Your task to perform on an android device: check the backup settings in the google photos Image 0: 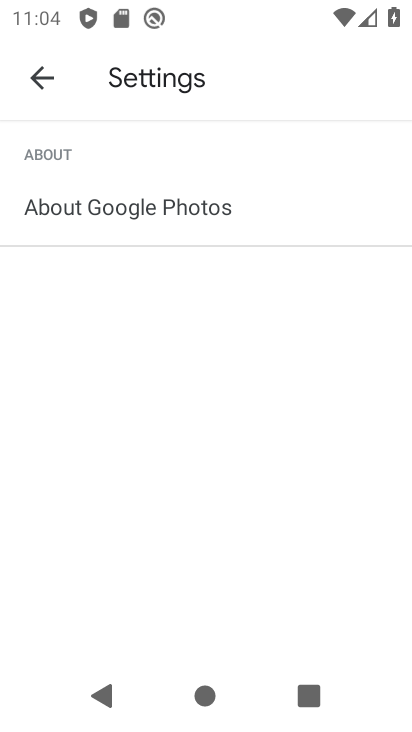
Step 0: press home button
Your task to perform on an android device: check the backup settings in the google photos Image 1: 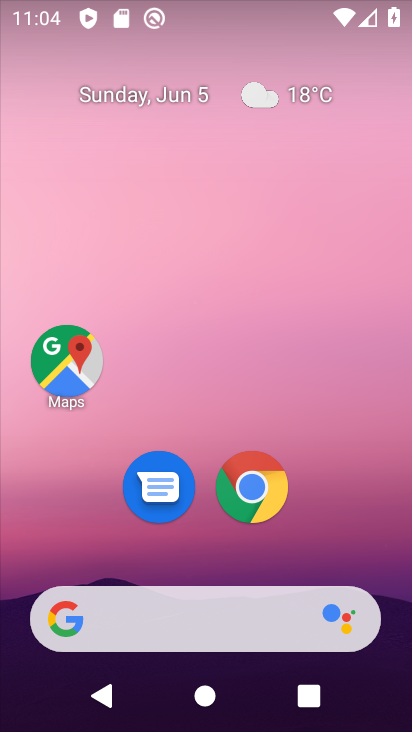
Step 1: drag from (350, 534) to (279, 37)
Your task to perform on an android device: check the backup settings in the google photos Image 2: 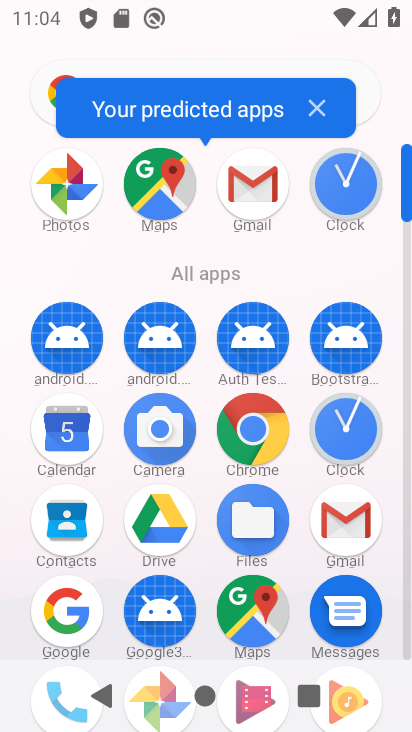
Step 2: click (290, 229)
Your task to perform on an android device: check the backup settings in the google photos Image 3: 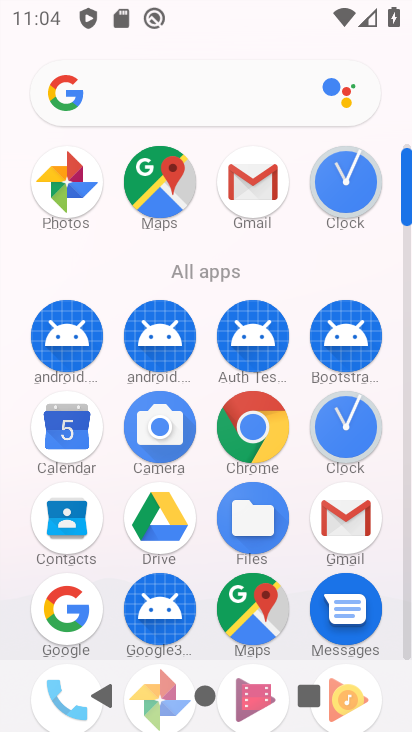
Step 3: click (67, 179)
Your task to perform on an android device: check the backup settings in the google photos Image 4: 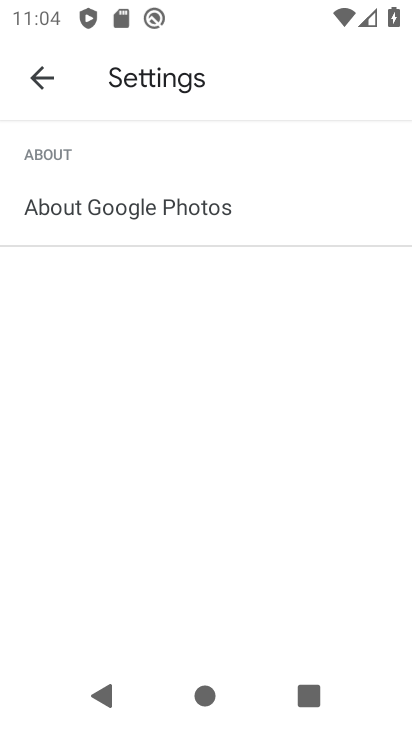
Step 4: click (44, 71)
Your task to perform on an android device: check the backup settings in the google photos Image 5: 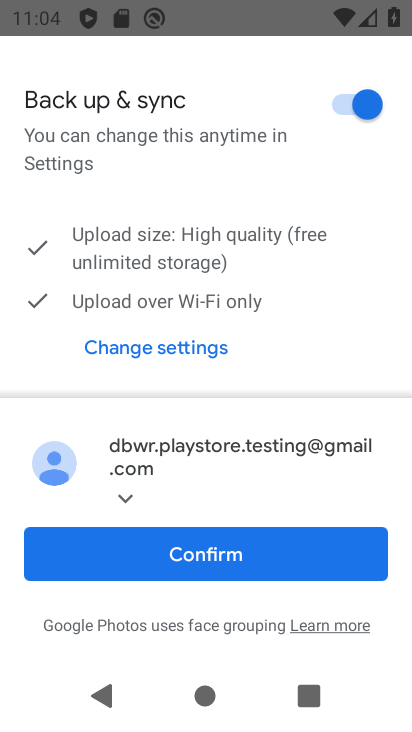
Step 5: click (196, 549)
Your task to perform on an android device: check the backup settings in the google photos Image 6: 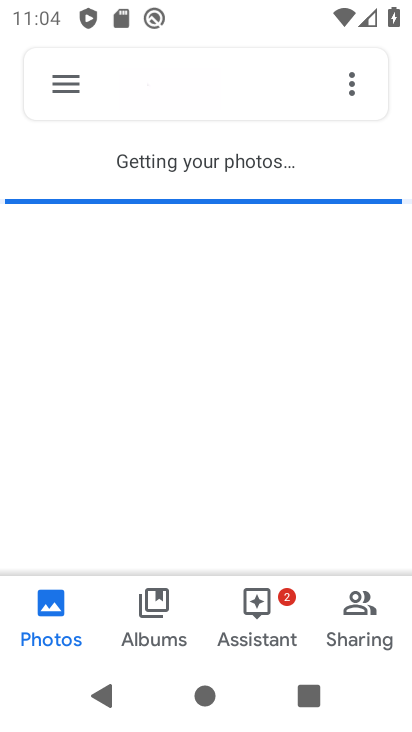
Step 6: click (69, 75)
Your task to perform on an android device: check the backup settings in the google photos Image 7: 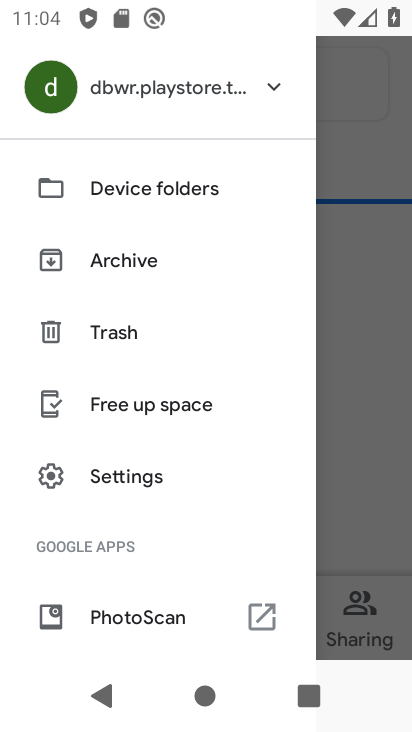
Step 7: click (111, 472)
Your task to perform on an android device: check the backup settings in the google photos Image 8: 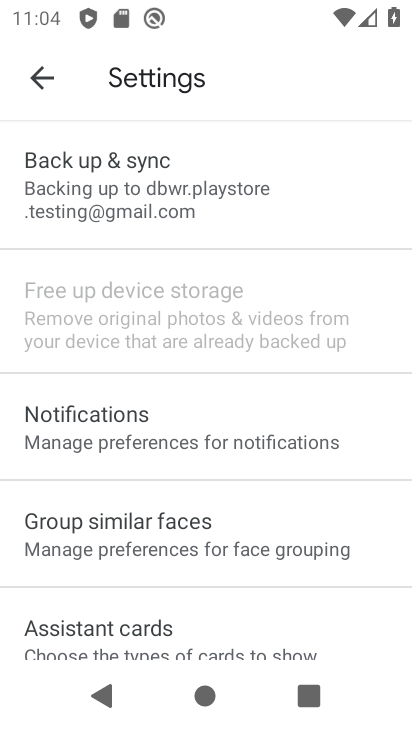
Step 8: click (106, 221)
Your task to perform on an android device: check the backup settings in the google photos Image 9: 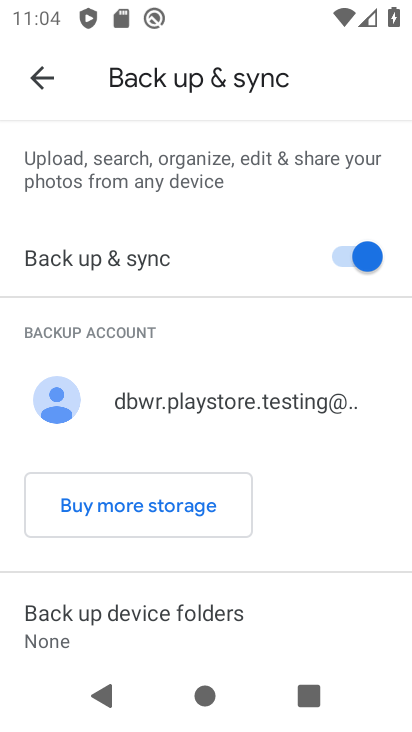
Step 9: task complete